Your task to perform on an android device: Go to CNN.com Image 0: 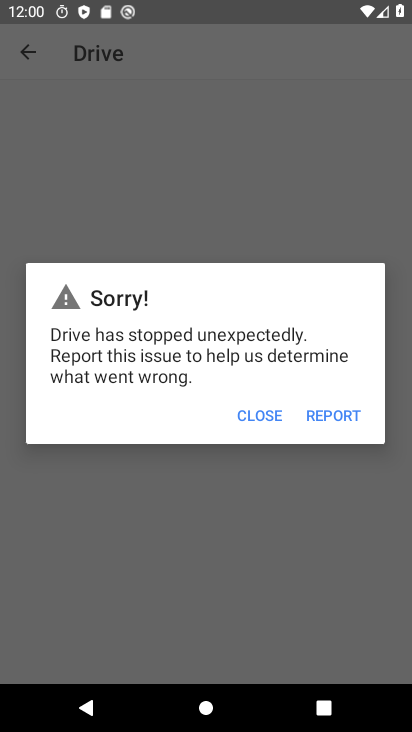
Step 0: press home button
Your task to perform on an android device: Go to CNN.com Image 1: 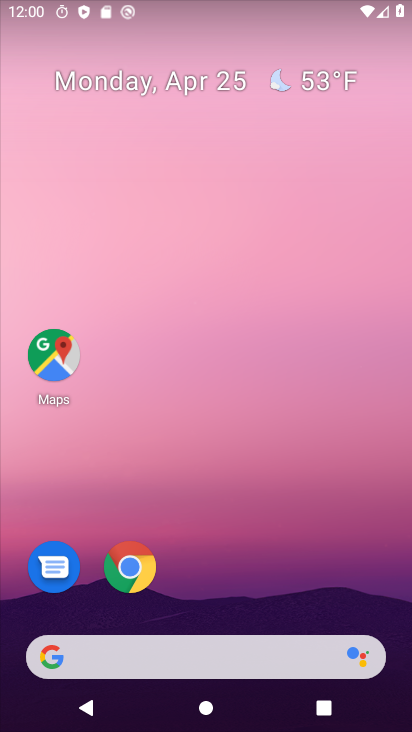
Step 1: click (237, 650)
Your task to perform on an android device: Go to CNN.com Image 2: 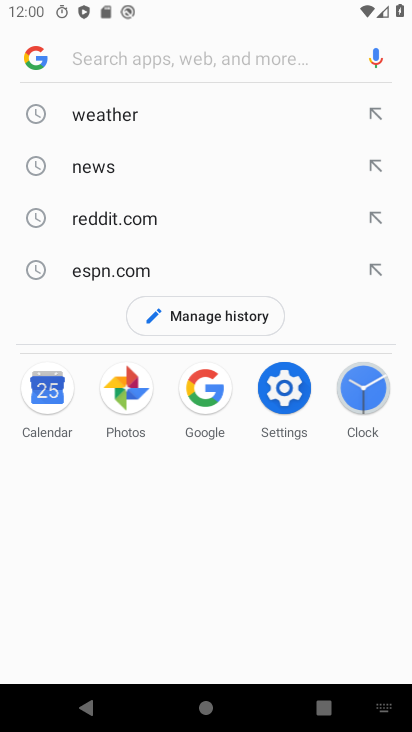
Step 2: type "cnn.com"
Your task to perform on an android device: Go to CNN.com Image 3: 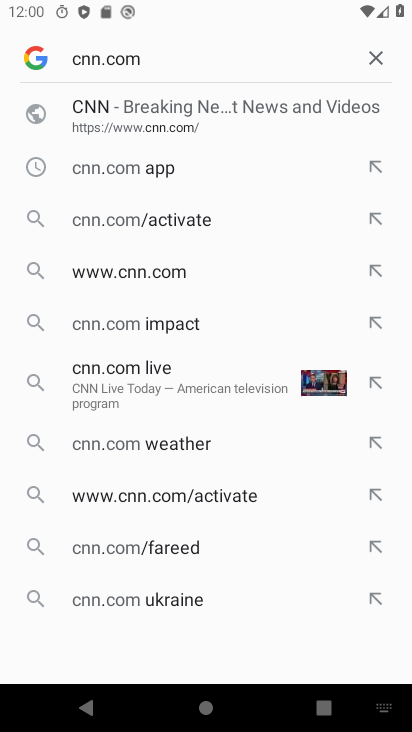
Step 3: click (187, 124)
Your task to perform on an android device: Go to CNN.com Image 4: 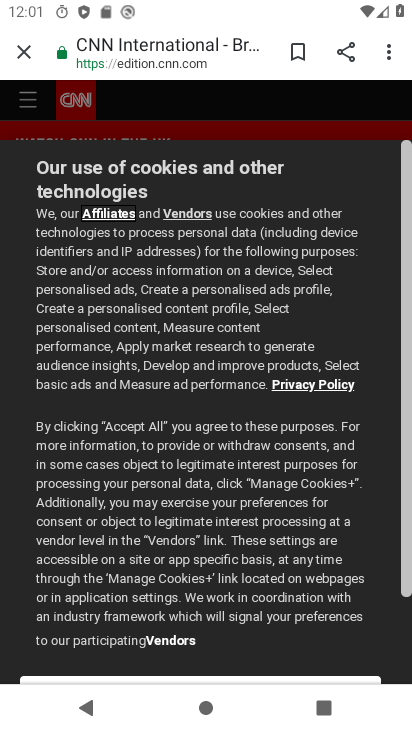
Step 4: task complete